Your task to perform on an android device: toggle data saver in the chrome app Image 0: 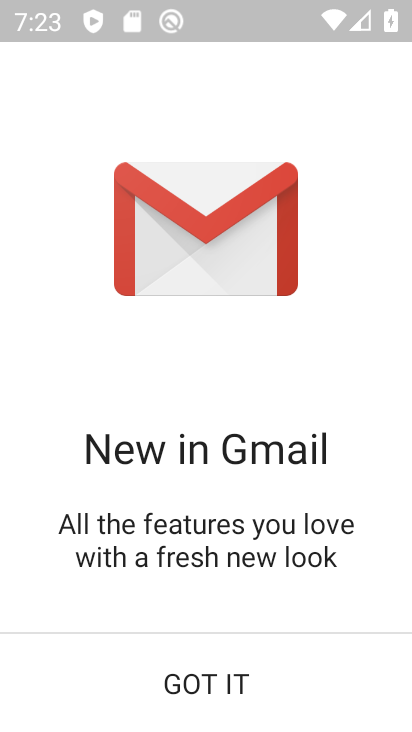
Step 0: press home button
Your task to perform on an android device: toggle data saver in the chrome app Image 1: 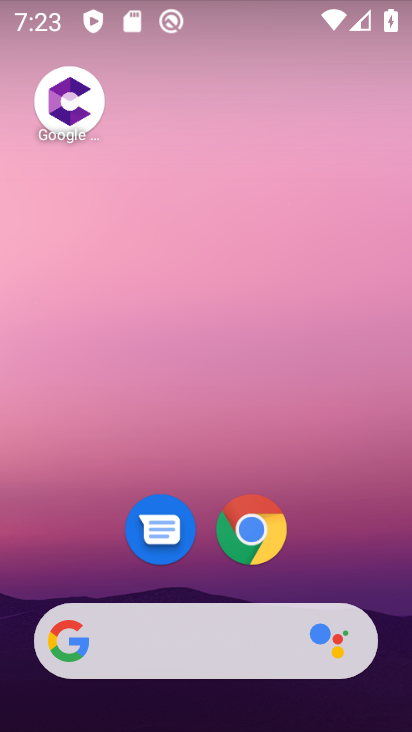
Step 1: drag from (202, 639) to (336, 154)
Your task to perform on an android device: toggle data saver in the chrome app Image 2: 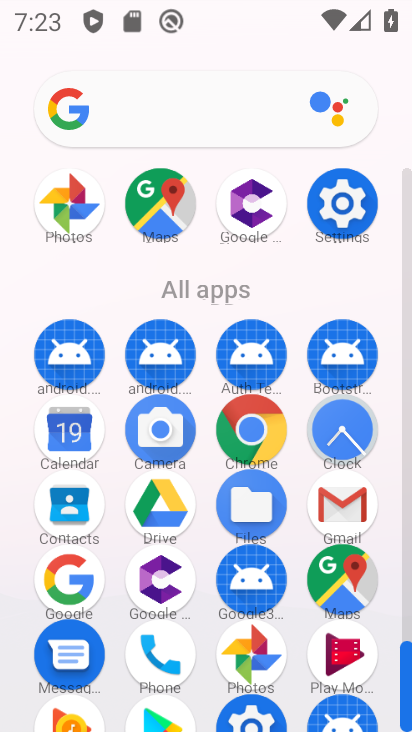
Step 2: click (250, 434)
Your task to perform on an android device: toggle data saver in the chrome app Image 3: 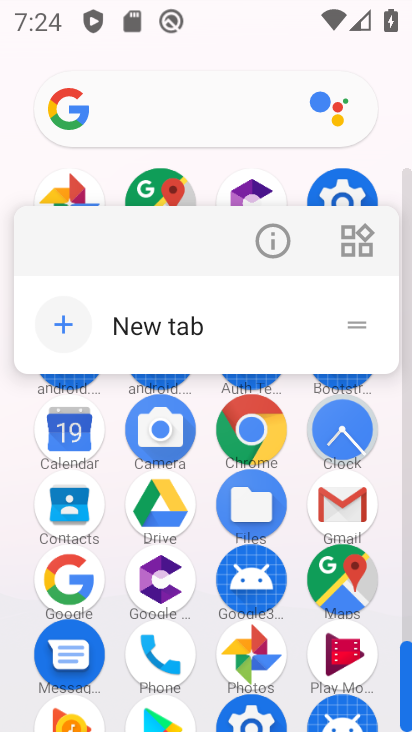
Step 3: click (257, 436)
Your task to perform on an android device: toggle data saver in the chrome app Image 4: 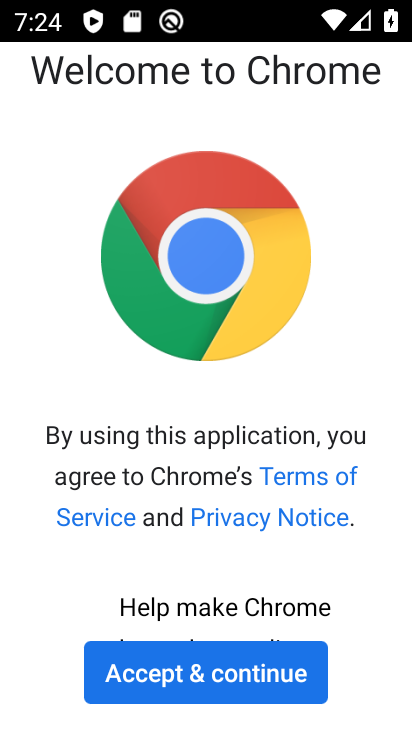
Step 4: click (230, 669)
Your task to perform on an android device: toggle data saver in the chrome app Image 5: 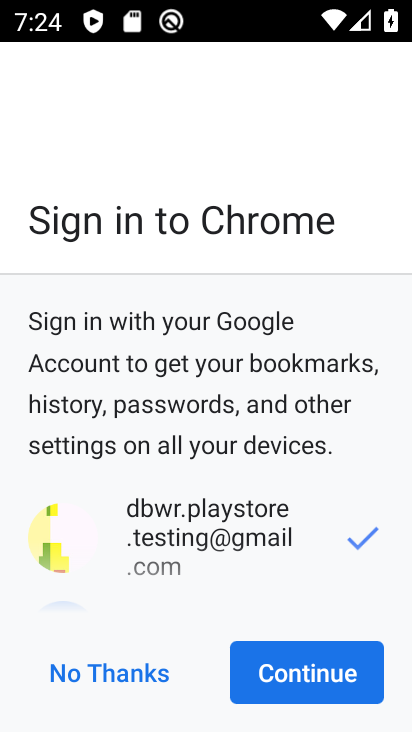
Step 5: click (304, 672)
Your task to perform on an android device: toggle data saver in the chrome app Image 6: 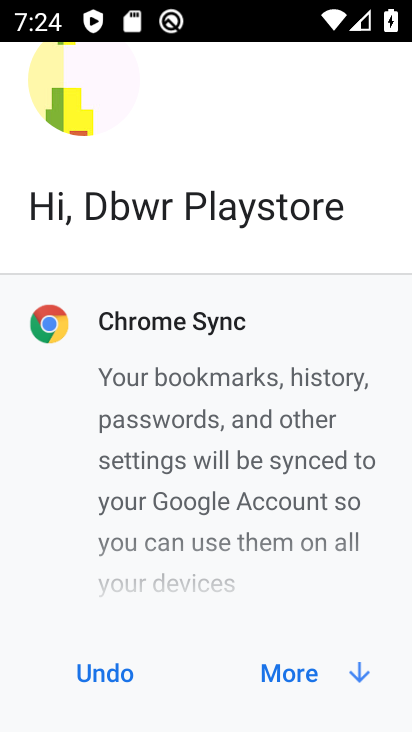
Step 6: click (304, 671)
Your task to perform on an android device: toggle data saver in the chrome app Image 7: 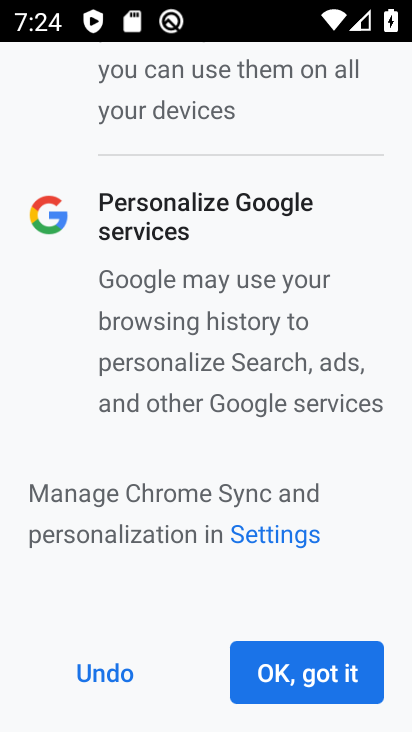
Step 7: click (279, 679)
Your task to perform on an android device: toggle data saver in the chrome app Image 8: 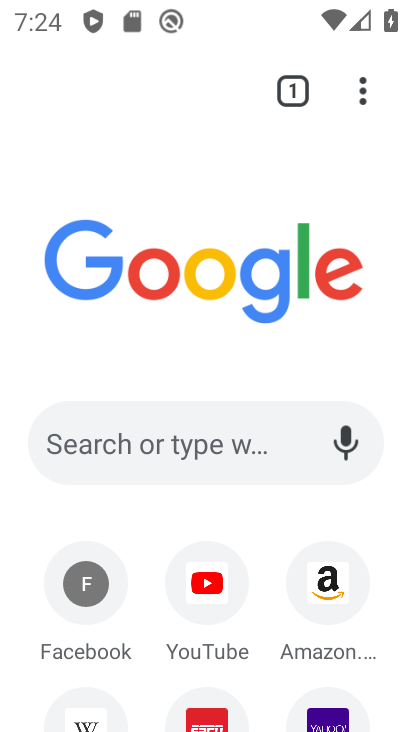
Step 8: click (362, 94)
Your task to perform on an android device: toggle data saver in the chrome app Image 9: 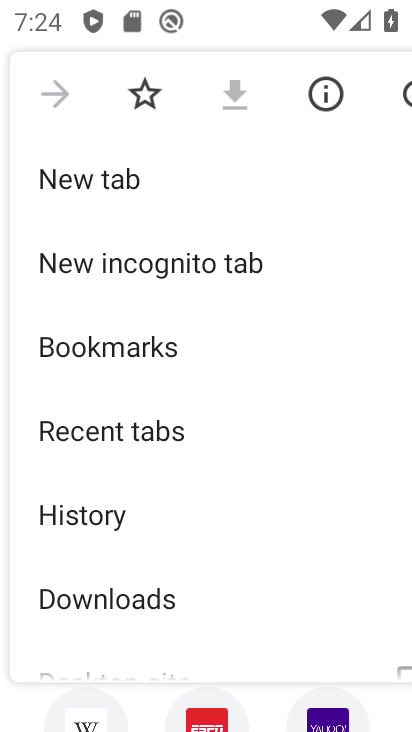
Step 9: drag from (214, 574) to (376, 115)
Your task to perform on an android device: toggle data saver in the chrome app Image 10: 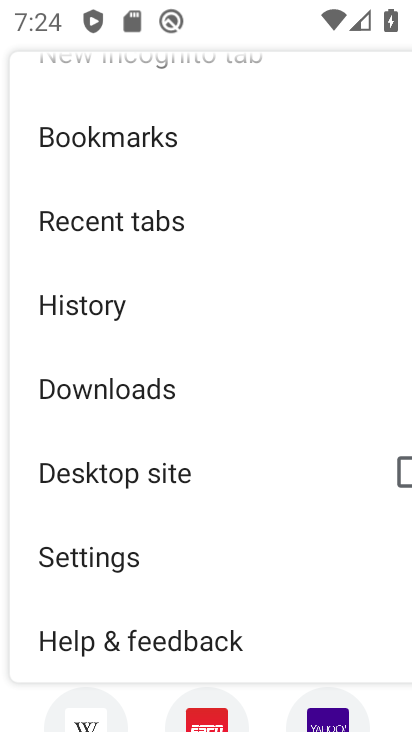
Step 10: click (117, 557)
Your task to perform on an android device: toggle data saver in the chrome app Image 11: 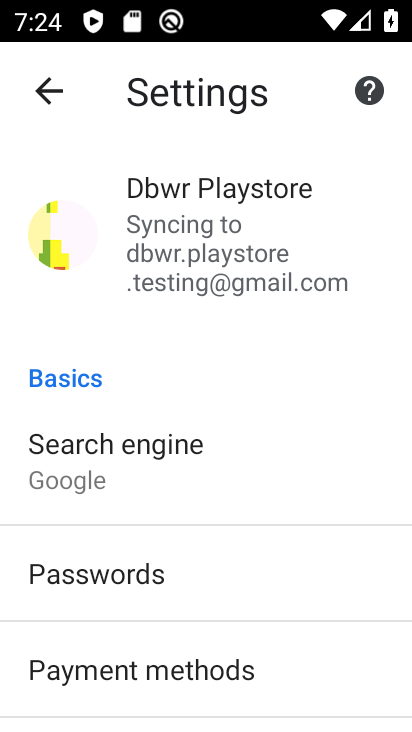
Step 11: drag from (175, 624) to (363, 165)
Your task to perform on an android device: toggle data saver in the chrome app Image 12: 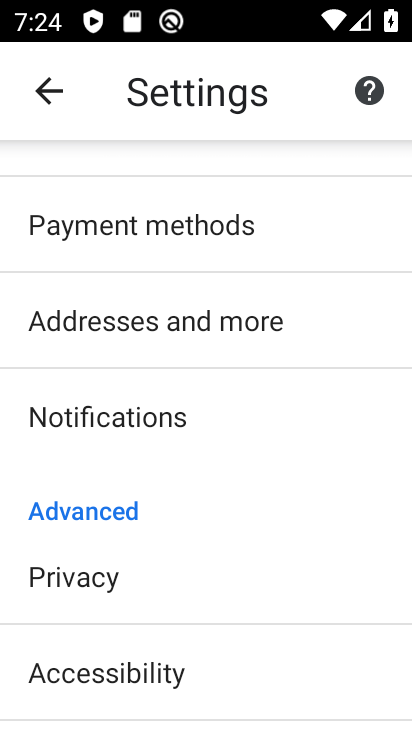
Step 12: drag from (200, 620) to (343, 134)
Your task to perform on an android device: toggle data saver in the chrome app Image 13: 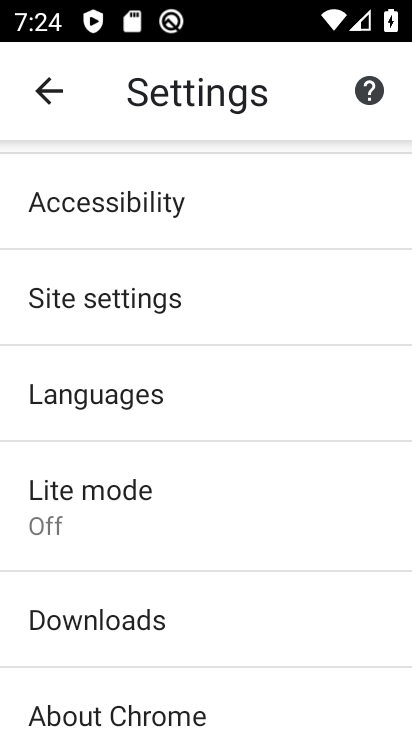
Step 13: click (147, 502)
Your task to perform on an android device: toggle data saver in the chrome app Image 14: 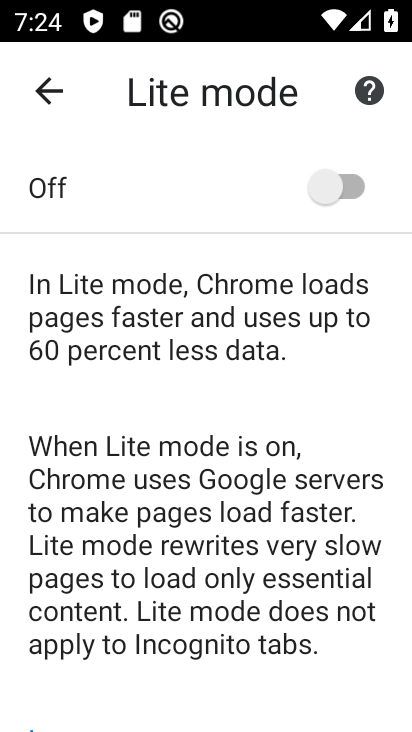
Step 14: click (349, 185)
Your task to perform on an android device: toggle data saver in the chrome app Image 15: 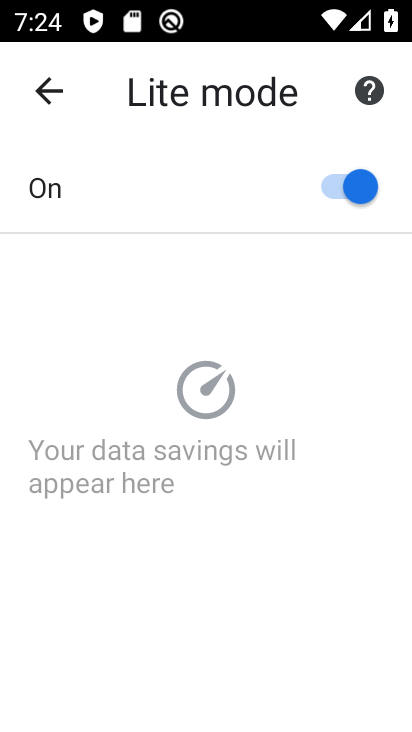
Step 15: task complete